Your task to perform on an android device: Go to Wikipedia Image 0: 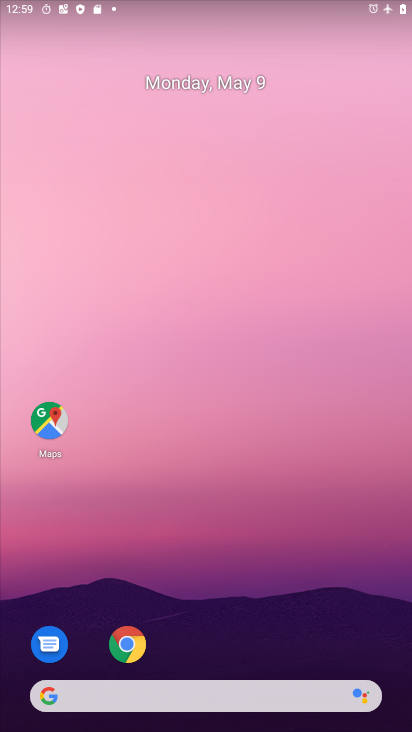
Step 0: drag from (374, 682) to (197, 90)
Your task to perform on an android device: Go to Wikipedia Image 1: 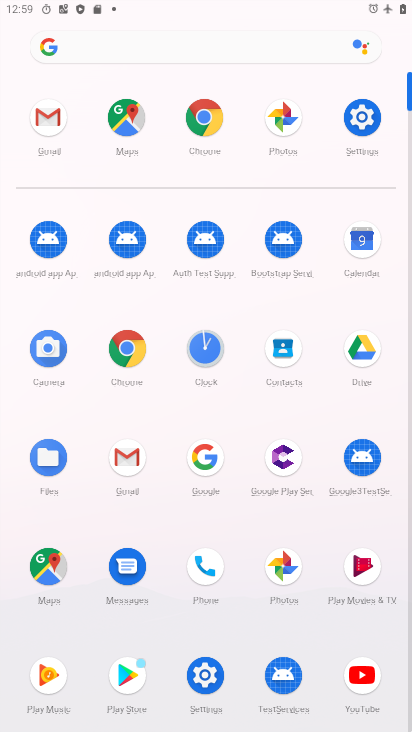
Step 1: click (193, 111)
Your task to perform on an android device: Go to Wikipedia Image 2: 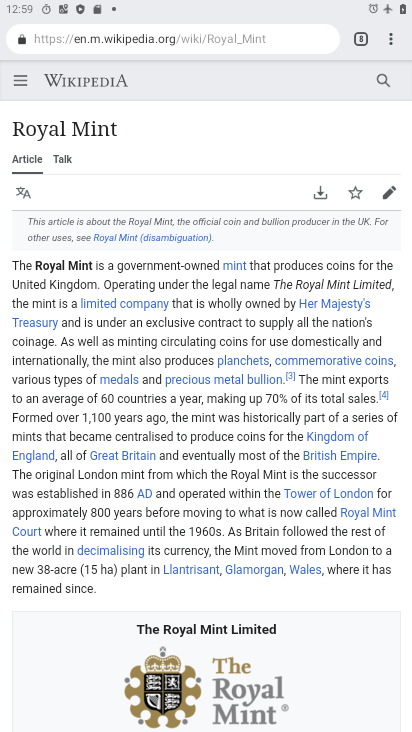
Step 2: task complete